Your task to perform on an android device: toggle javascript in the chrome app Image 0: 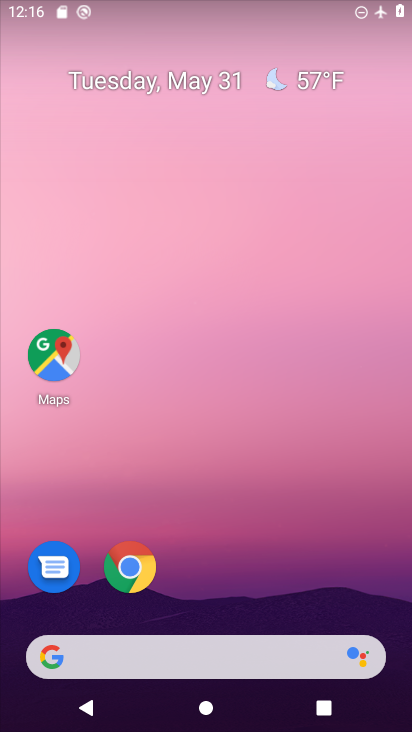
Step 0: click (144, 583)
Your task to perform on an android device: toggle javascript in the chrome app Image 1: 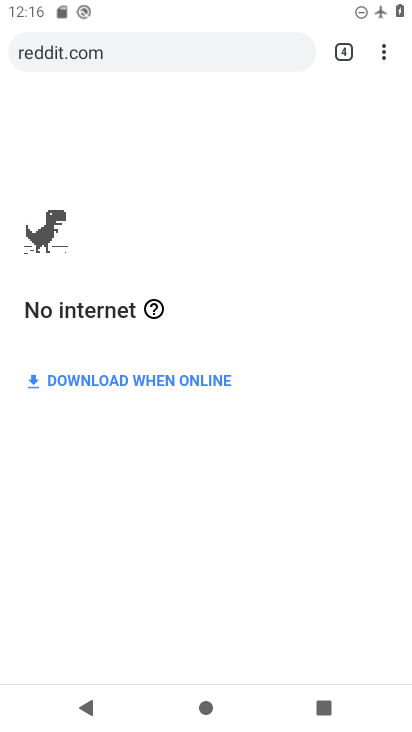
Step 1: click (388, 41)
Your task to perform on an android device: toggle javascript in the chrome app Image 2: 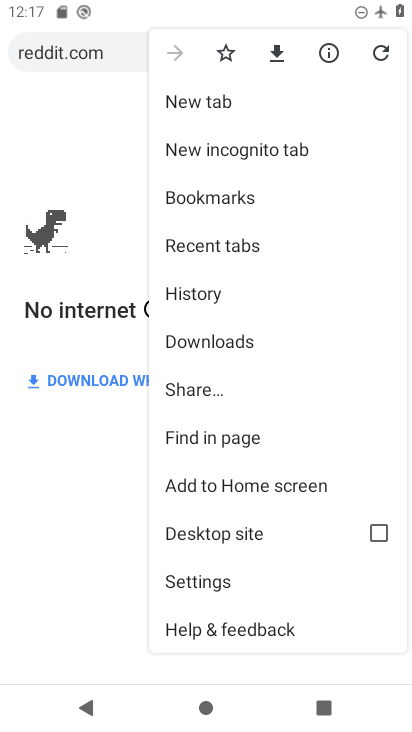
Step 2: click (220, 568)
Your task to perform on an android device: toggle javascript in the chrome app Image 3: 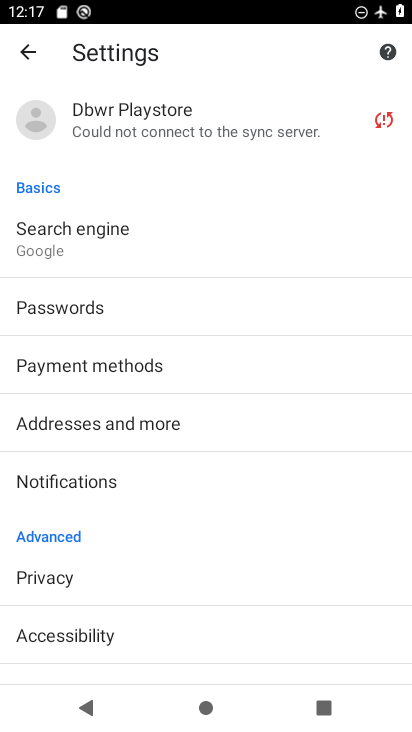
Step 3: drag from (115, 571) to (131, 270)
Your task to perform on an android device: toggle javascript in the chrome app Image 4: 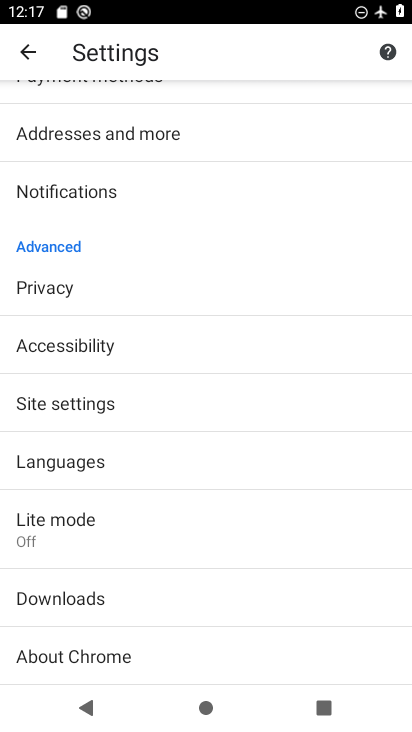
Step 4: drag from (135, 560) to (148, 304)
Your task to perform on an android device: toggle javascript in the chrome app Image 5: 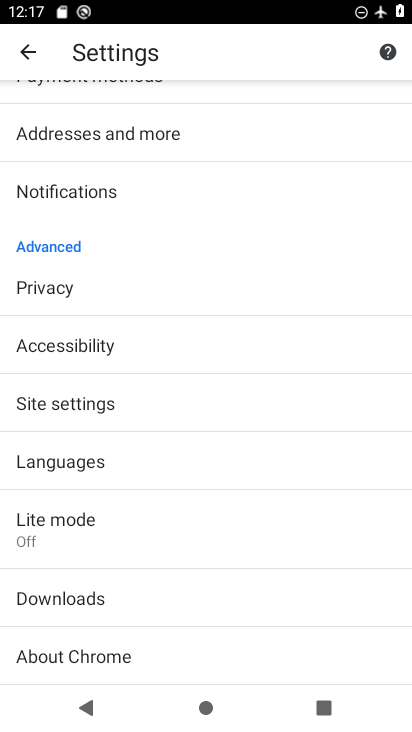
Step 5: click (113, 389)
Your task to perform on an android device: toggle javascript in the chrome app Image 6: 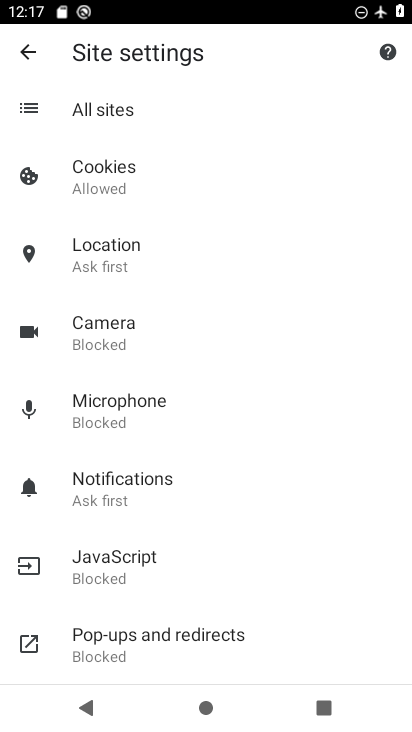
Step 6: click (110, 553)
Your task to perform on an android device: toggle javascript in the chrome app Image 7: 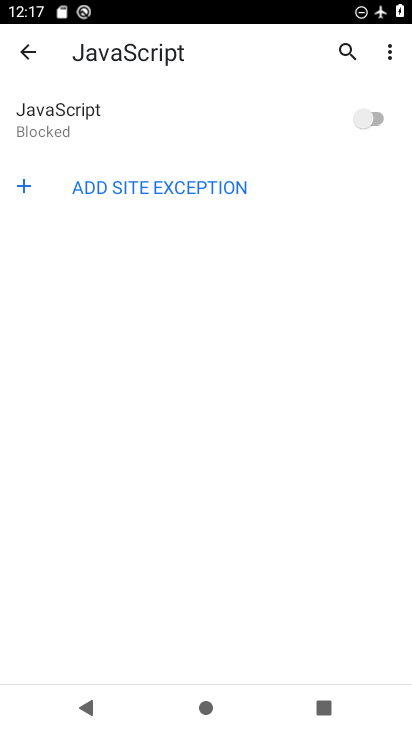
Step 7: click (373, 122)
Your task to perform on an android device: toggle javascript in the chrome app Image 8: 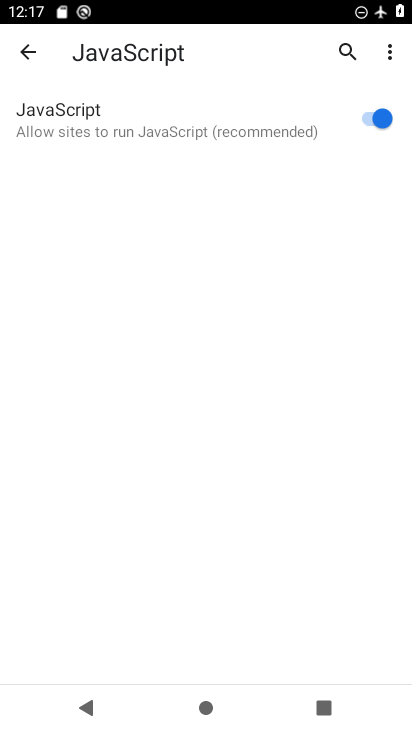
Step 8: task complete